Your task to perform on an android device: set the timer Image 0: 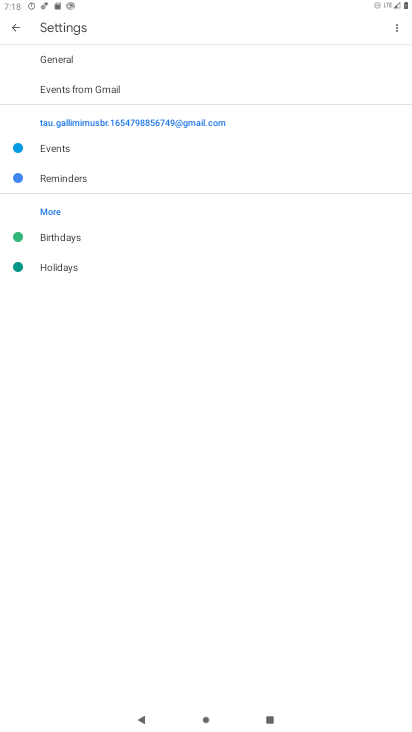
Step 0: press home button
Your task to perform on an android device: set the timer Image 1: 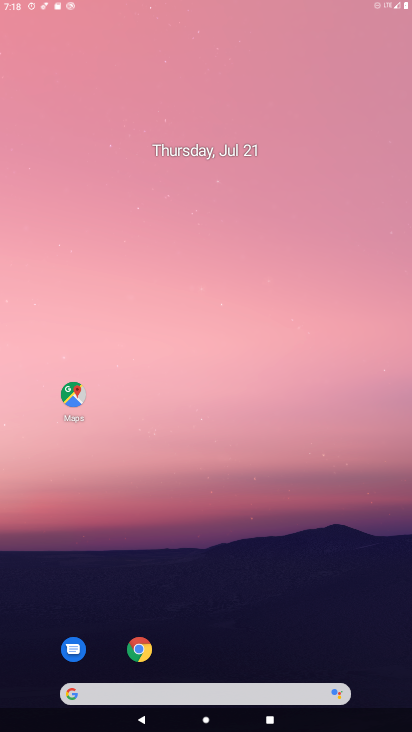
Step 1: drag from (363, 711) to (260, 0)
Your task to perform on an android device: set the timer Image 2: 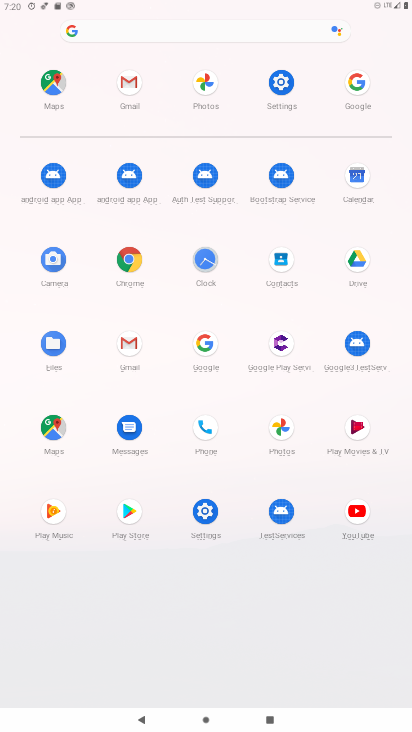
Step 2: click (203, 258)
Your task to perform on an android device: set the timer Image 3: 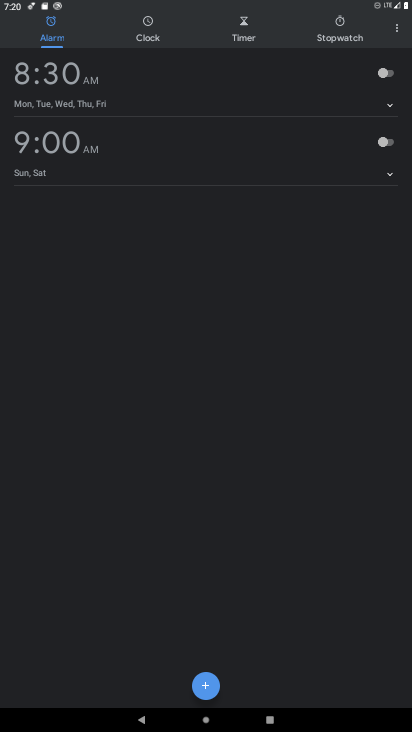
Step 3: click (239, 29)
Your task to perform on an android device: set the timer Image 4: 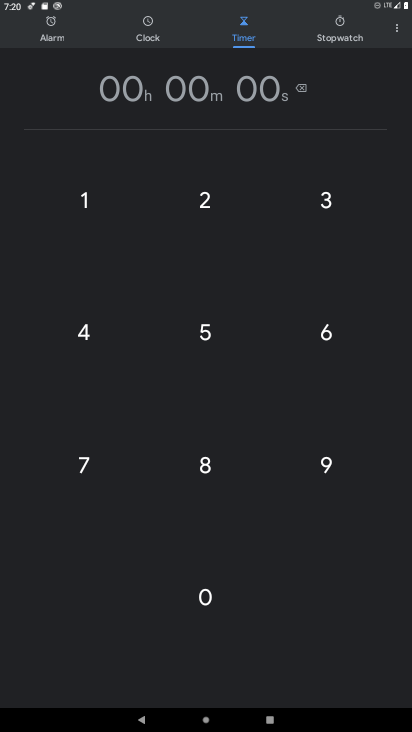
Step 4: click (81, 208)
Your task to perform on an android device: set the timer Image 5: 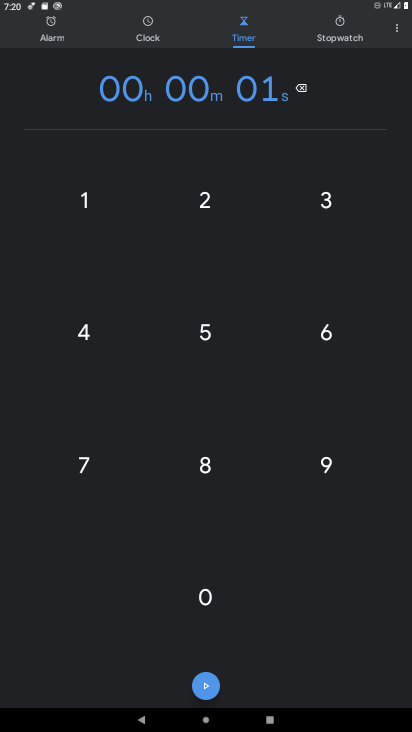
Step 5: click (81, 208)
Your task to perform on an android device: set the timer Image 6: 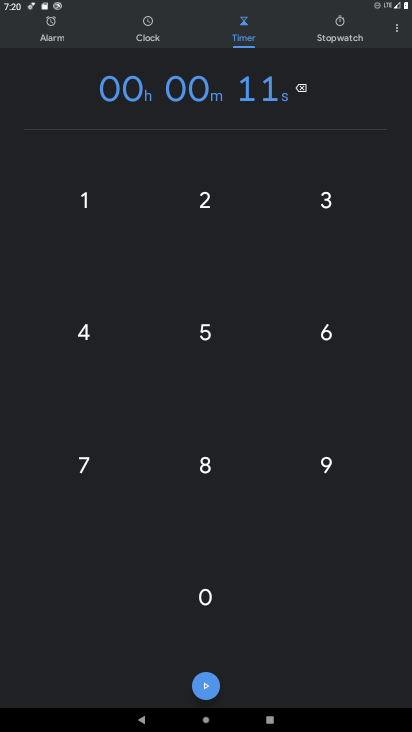
Step 6: click (81, 208)
Your task to perform on an android device: set the timer Image 7: 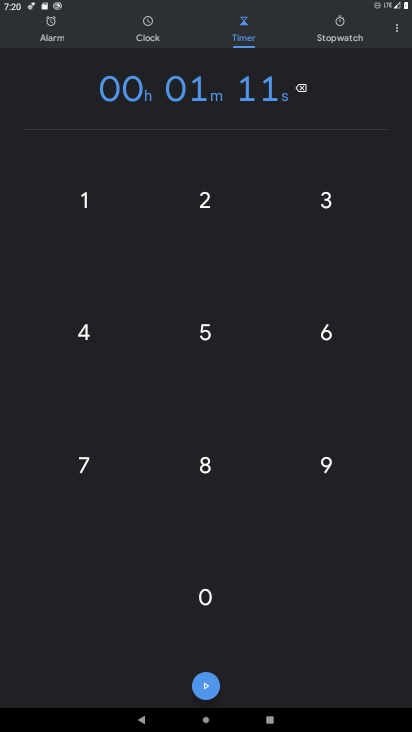
Step 7: click (81, 208)
Your task to perform on an android device: set the timer Image 8: 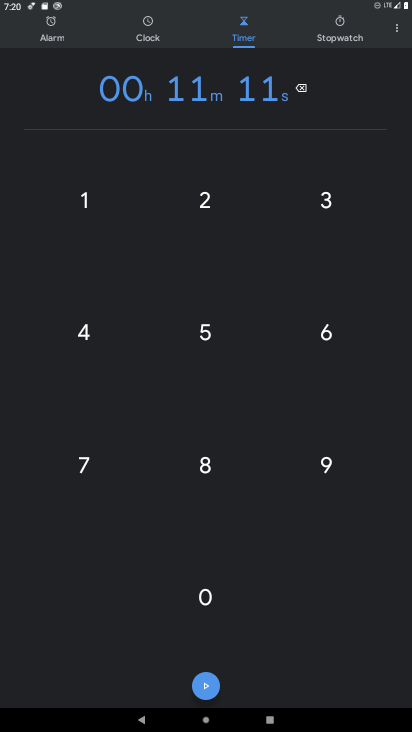
Step 8: click (81, 208)
Your task to perform on an android device: set the timer Image 9: 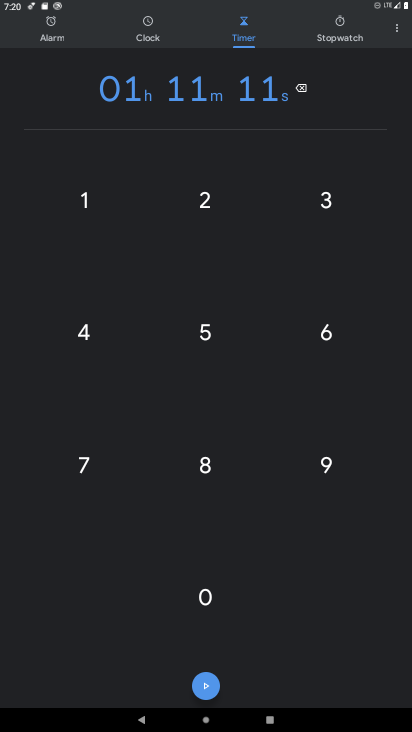
Step 9: task complete